Your task to perform on an android device: Go to internet settings Image 0: 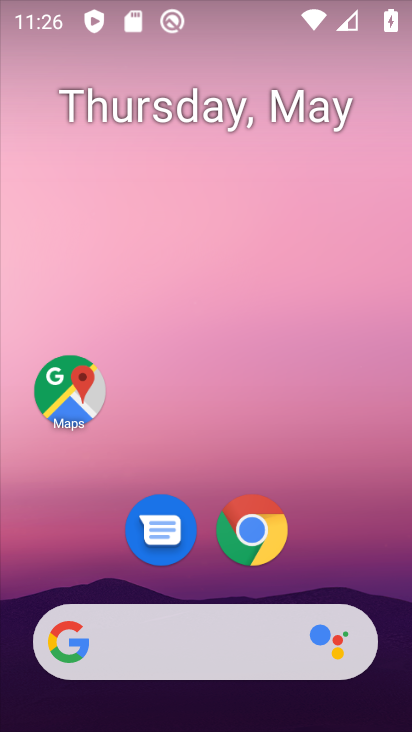
Step 0: drag from (317, 572) to (375, 59)
Your task to perform on an android device: Go to internet settings Image 1: 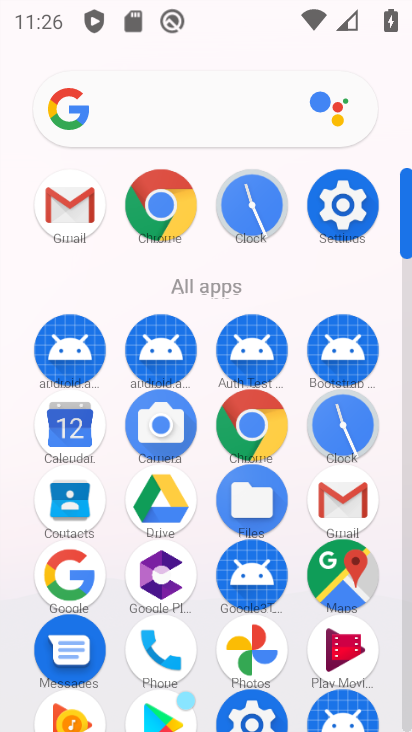
Step 1: click (334, 186)
Your task to perform on an android device: Go to internet settings Image 2: 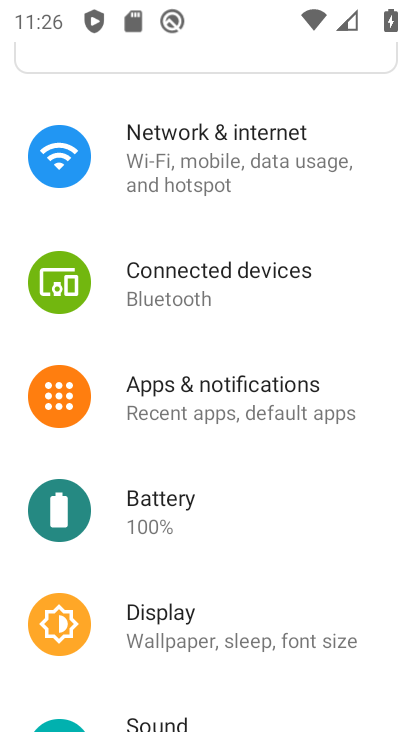
Step 2: click (189, 197)
Your task to perform on an android device: Go to internet settings Image 3: 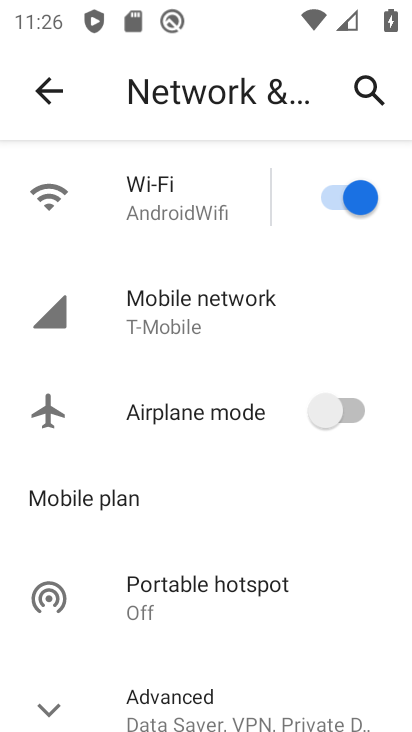
Step 3: click (134, 301)
Your task to perform on an android device: Go to internet settings Image 4: 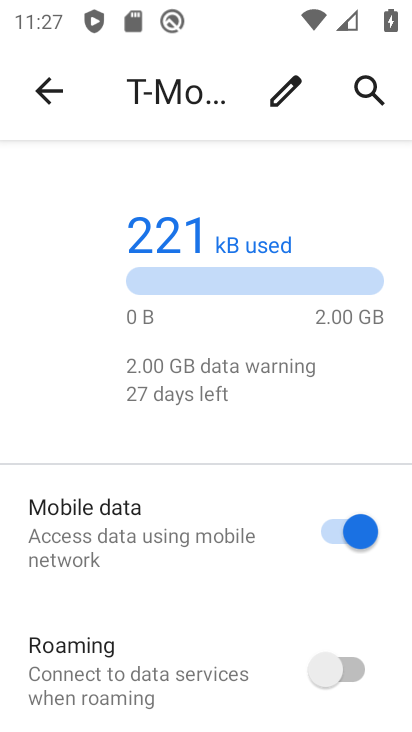
Step 4: task complete